Your task to perform on an android device: turn off priority inbox in the gmail app Image 0: 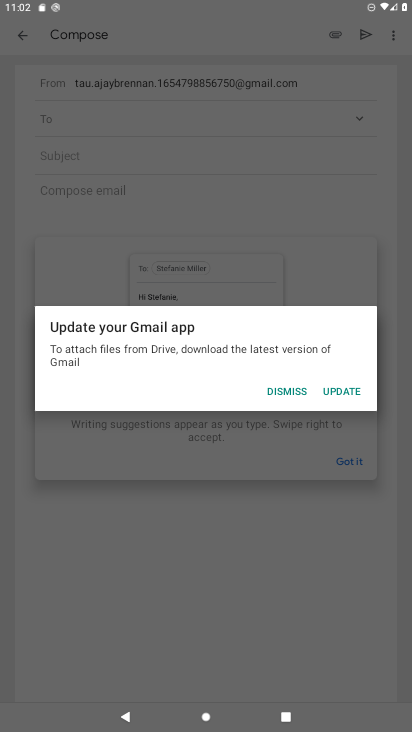
Step 0: press home button
Your task to perform on an android device: turn off priority inbox in the gmail app Image 1: 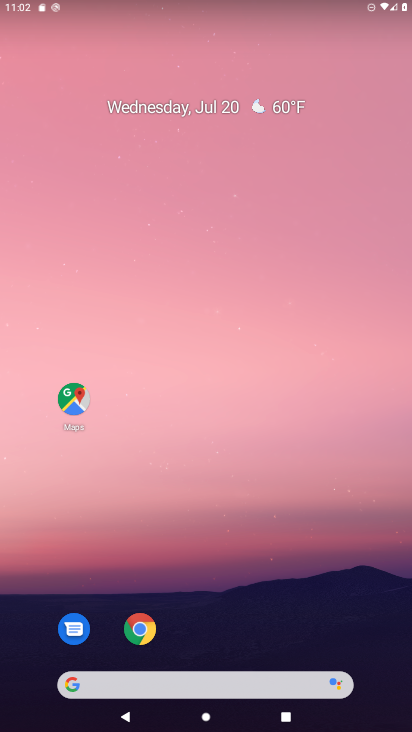
Step 1: drag from (214, 606) to (222, 124)
Your task to perform on an android device: turn off priority inbox in the gmail app Image 2: 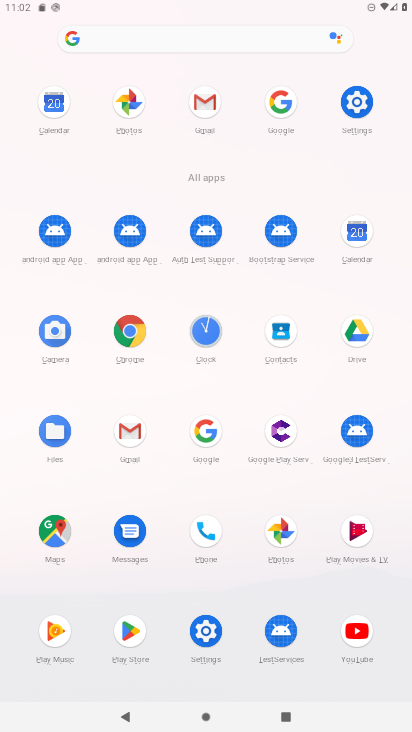
Step 2: click (131, 441)
Your task to perform on an android device: turn off priority inbox in the gmail app Image 3: 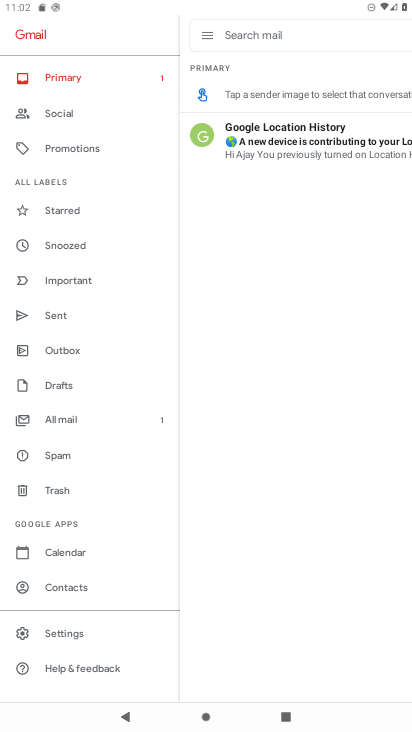
Step 3: click (59, 642)
Your task to perform on an android device: turn off priority inbox in the gmail app Image 4: 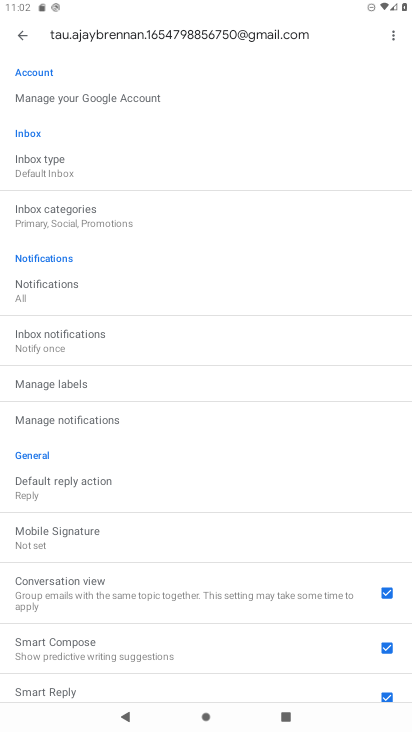
Step 4: click (113, 169)
Your task to perform on an android device: turn off priority inbox in the gmail app Image 5: 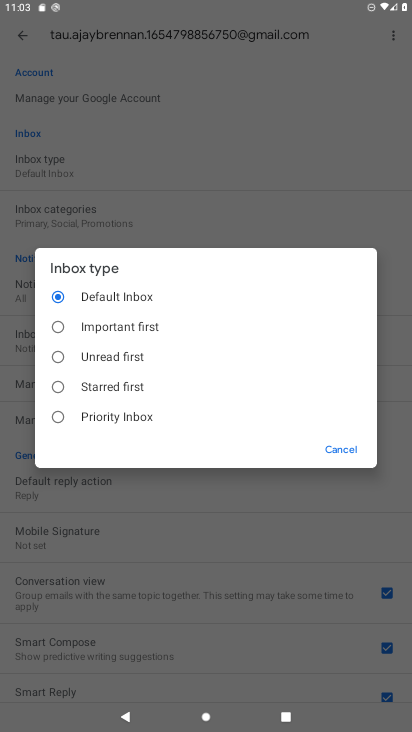
Step 5: task complete